Your task to perform on an android device: Open the web browser Image 0: 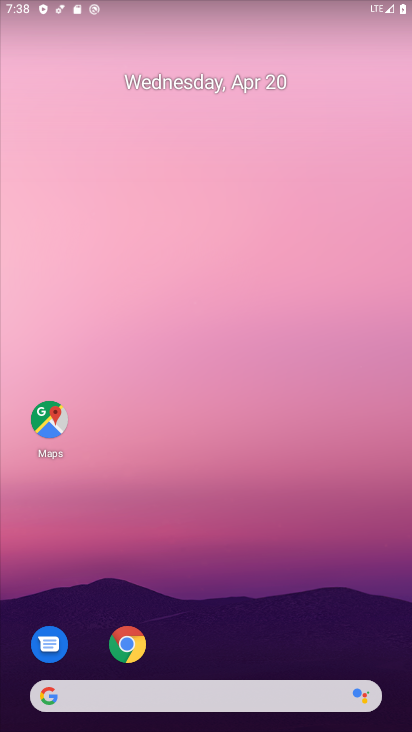
Step 0: click (130, 652)
Your task to perform on an android device: Open the web browser Image 1: 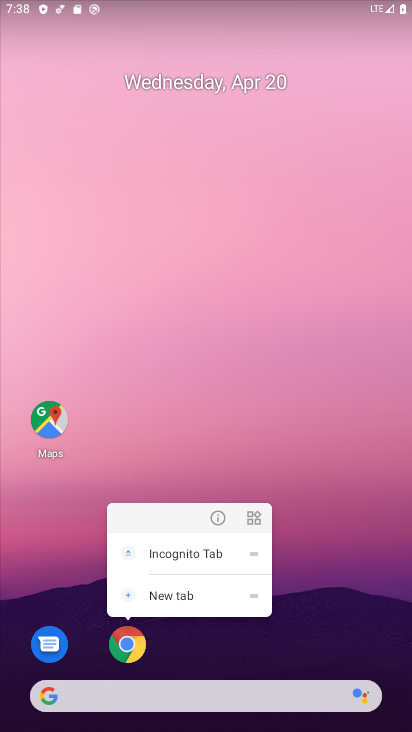
Step 1: click (124, 647)
Your task to perform on an android device: Open the web browser Image 2: 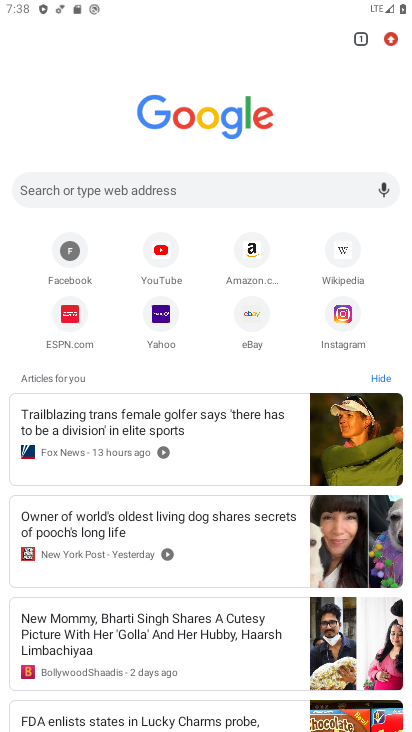
Step 2: task complete